Your task to perform on an android device: add a contact Image 0: 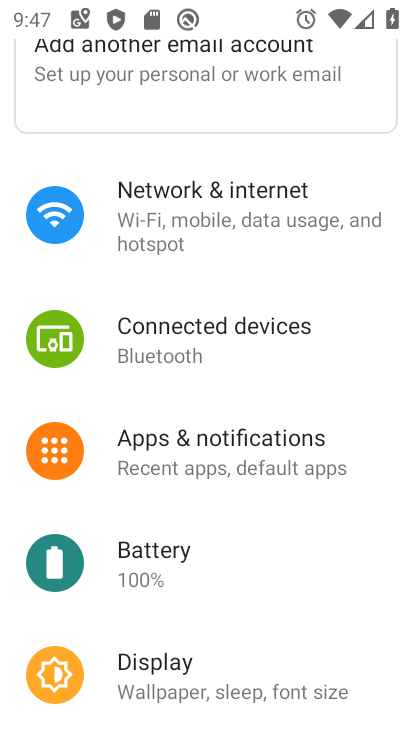
Step 0: press home button
Your task to perform on an android device: add a contact Image 1: 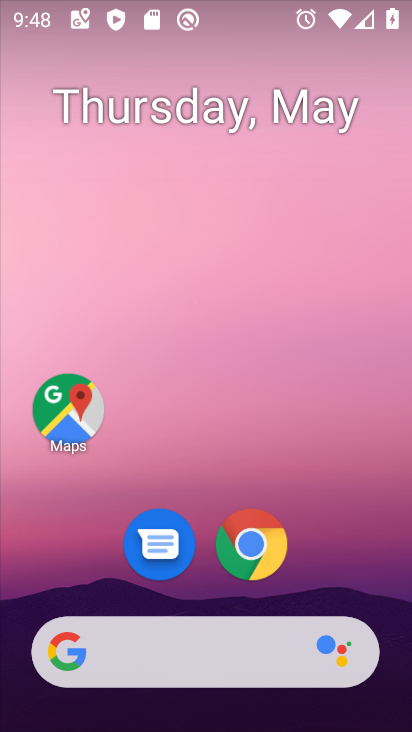
Step 1: drag from (170, 309) to (178, 264)
Your task to perform on an android device: add a contact Image 2: 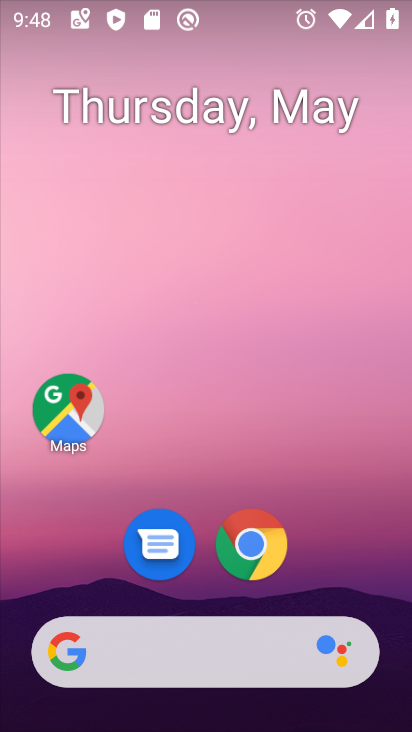
Step 2: drag from (203, 393) to (224, 209)
Your task to perform on an android device: add a contact Image 3: 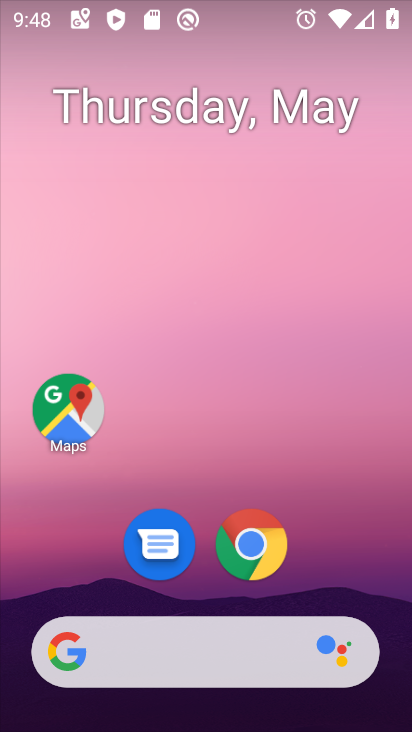
Step 3: drag from (197, 612) to (232, 146)
Your task to perform on an android device: add a contact Image 4: 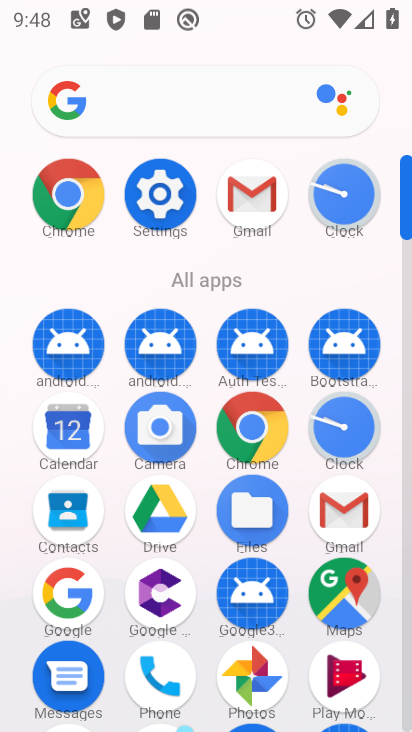
Step 4: click (79, 504)
Your task to perform on an android device: add a contact Image 5: 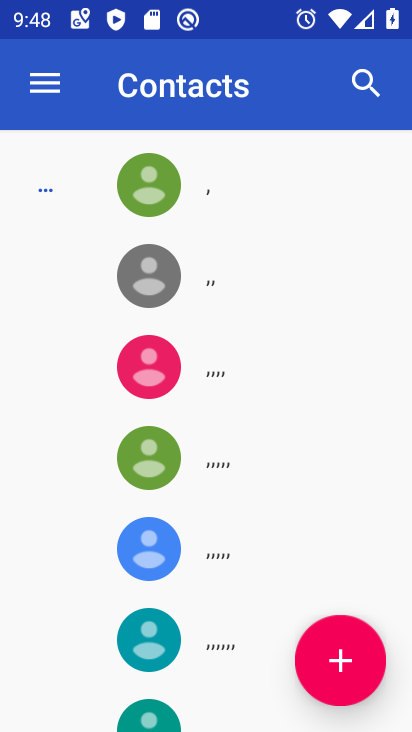
Step 5: click (344, 660)
Your task to perform on an android device: add a contact Image 6: 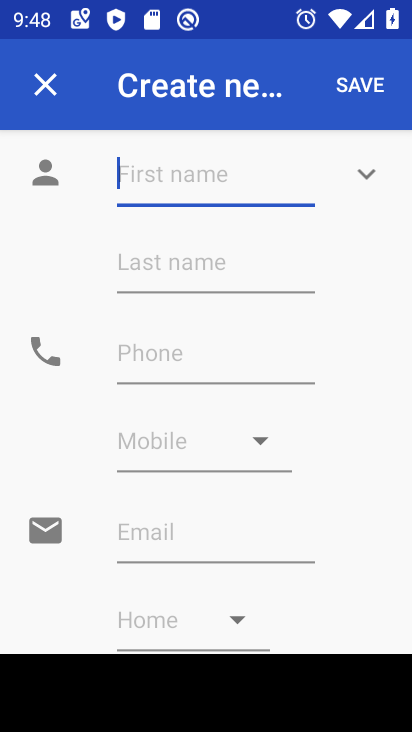
Step 6: type "dcfd"
Your task to perform on an android device: add a contact Image 7: 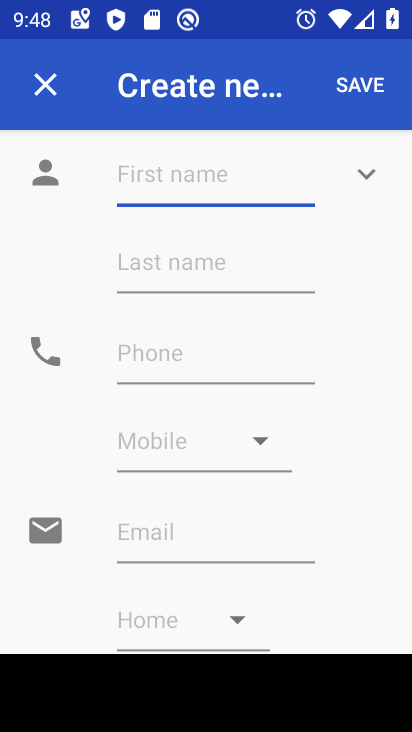
Step 7: click (180, 273)
Your task to perform on an android device: add a contact Image 8: 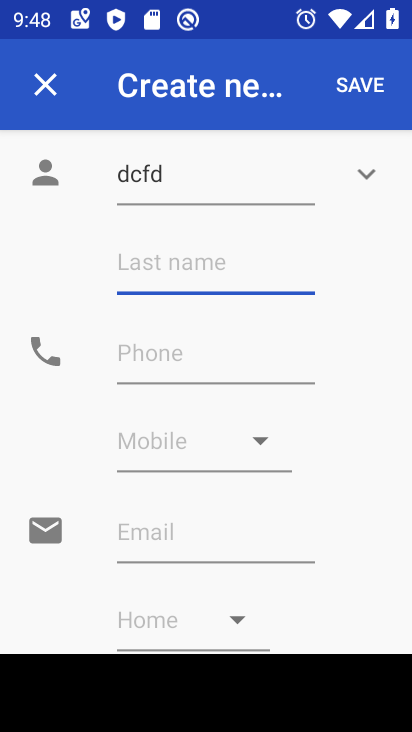
Step 8: type "dcdc"
Your task to perform on an android device: add a contact Image 9: 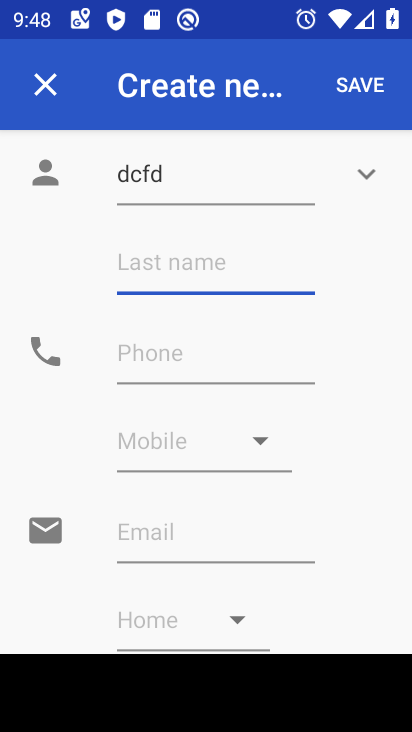
Step 9: click (176, 373)
Your task to perform on an android device: add a contact Image 10: 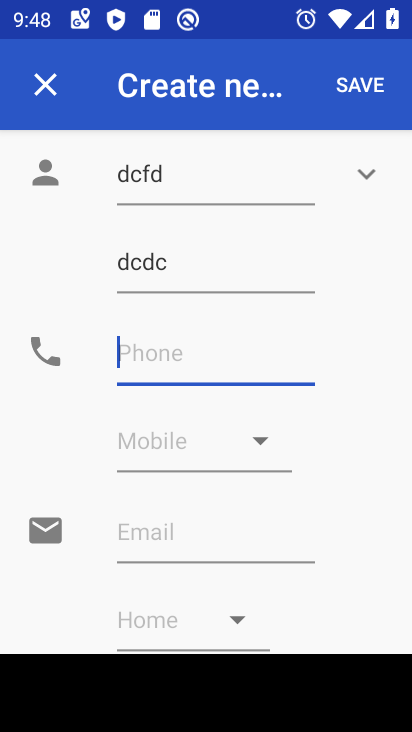
Step 10: type "34343"
Your task to perform on an android device: add a contact Image 11: 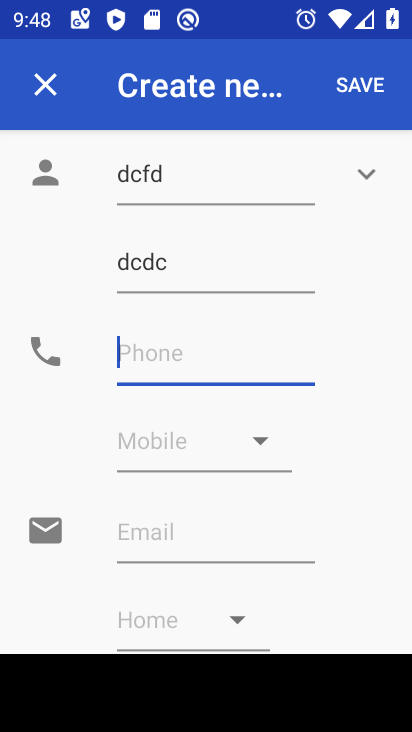
Step 11: click (173, 435)
Your task to perform on an android device: add a contact Image 12: 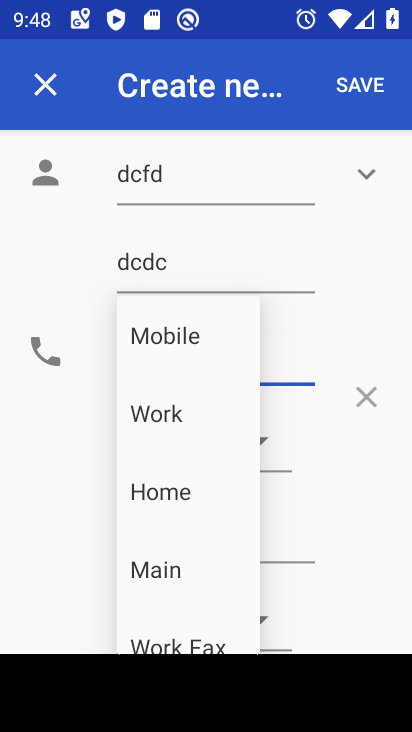
Step 12: click (362, 95)
Your task to perform on an android device: add a contact Image 13: 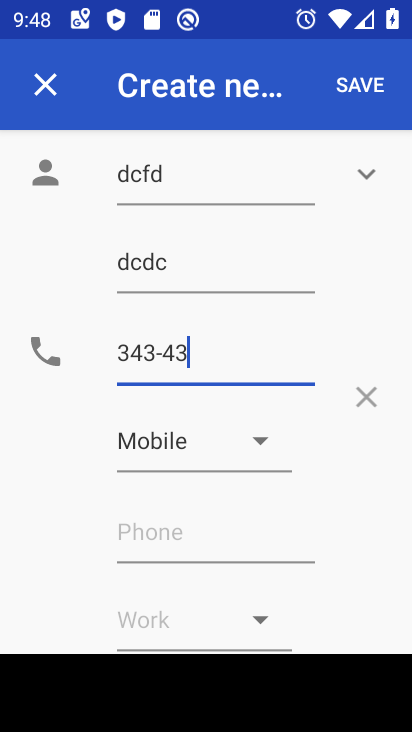
Step 13: click (367, 95)
Your task to perform on an android device: add a contact Image 14: 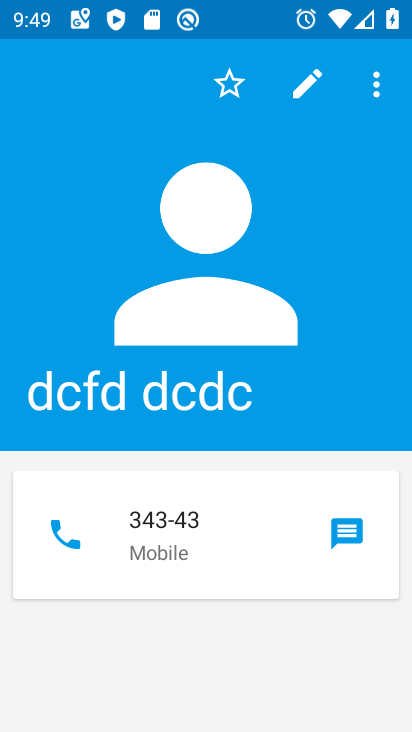
Step 14: task complete